Your task to perform on an android device: turn on showing notifications on the lock screen Image 0: 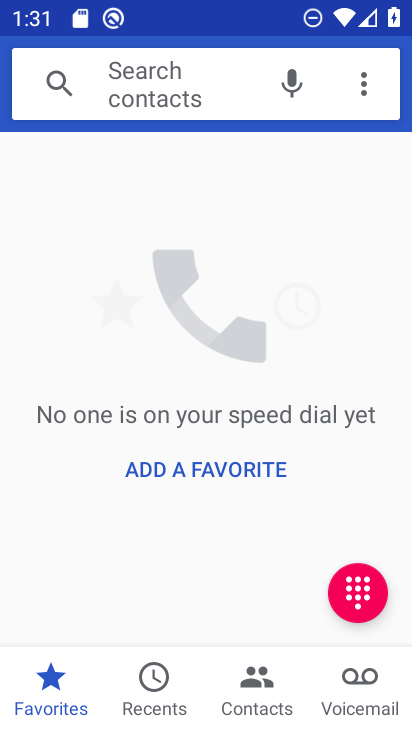
Step 0: press back button
Your task to perform on an android device: turn on showing notifications on the lock screen Image 1: 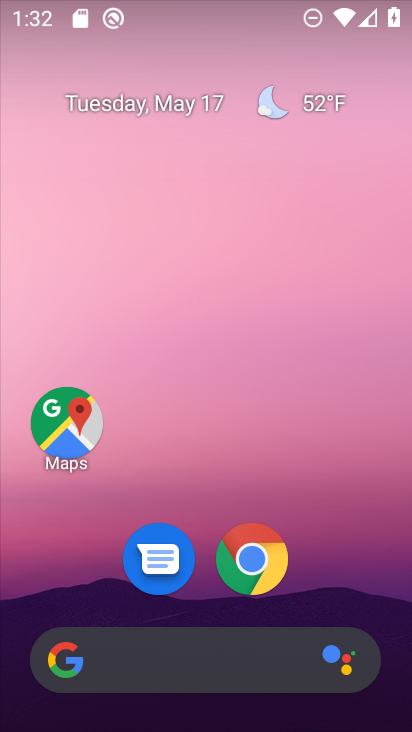
Step 1: drag from (337, 557) to (230, 93)
Your task to perform on an android device: turn on showing notifications on the lock screen Image 2: 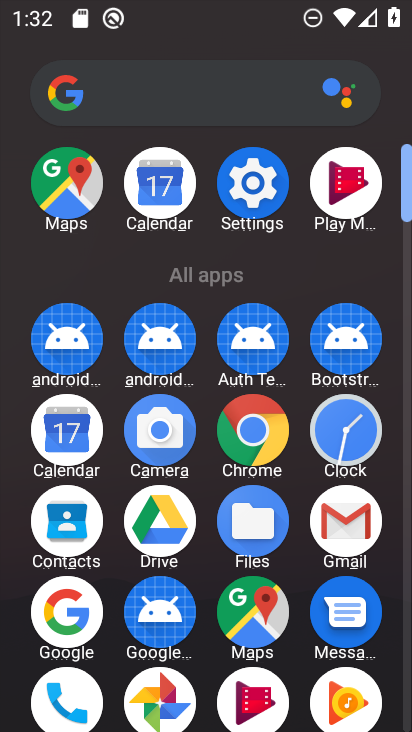
Step 2: click (254, 182)
Your task to perform on an android device: turn on showing notifications on the lock screen Image 3: 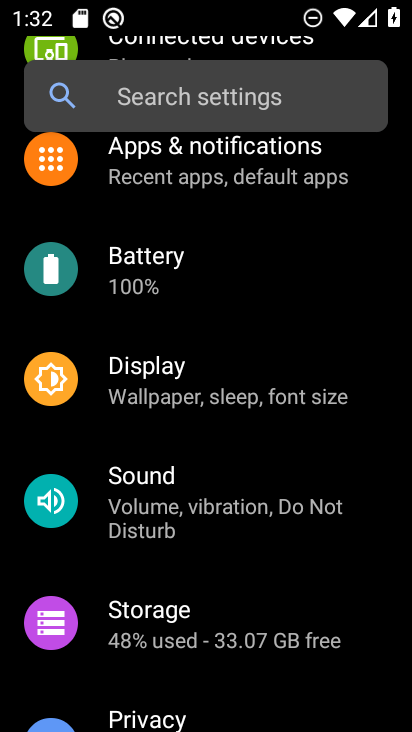
Step 3: drag from (274, 281) to (231, 470)
Your task to perform on an android device: turn on showing notifications on the lock screen Image 4: 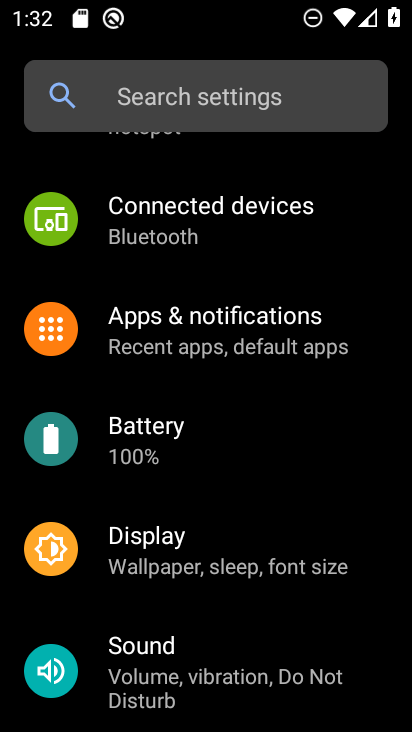
Step 4: click (214, 324)
Your task to perform on an android device: turn on showing notifications on the lock screen Image 5: 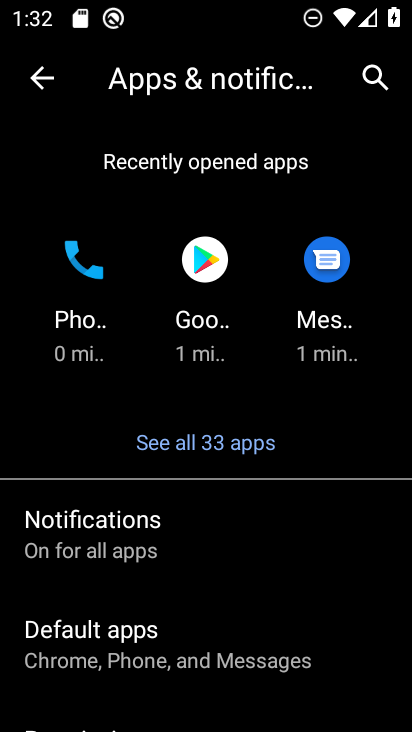
Step 5: click (94, 523)
Your task to perform on an android device: turn on showing notifications on the lock screen Image 6: 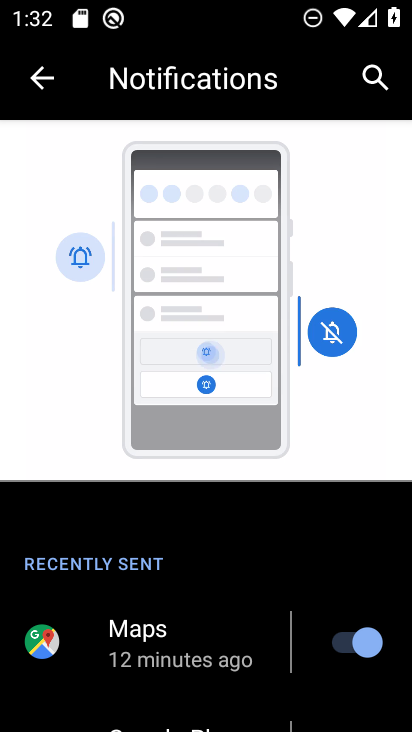
Step 6: drag from (188, 583) to (237, 372)
Your task to perform on an android device: turn on showing notifications on the lock screen Image 7: 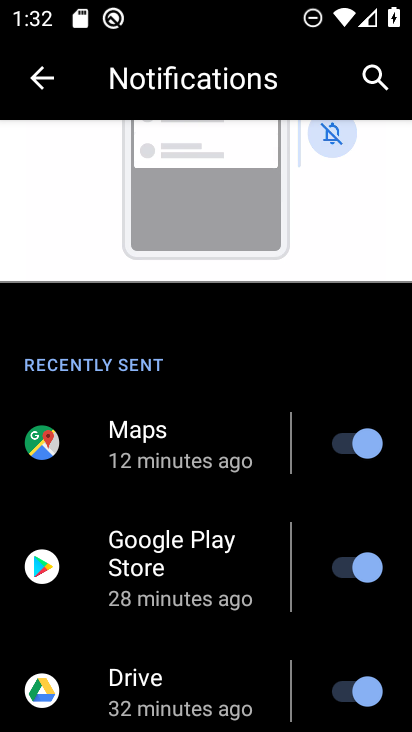
Step 7: drag from (178, 624) to (240, 457)
Your task to perform on an android device: turn on showing notifications on the lock screen Image 8: 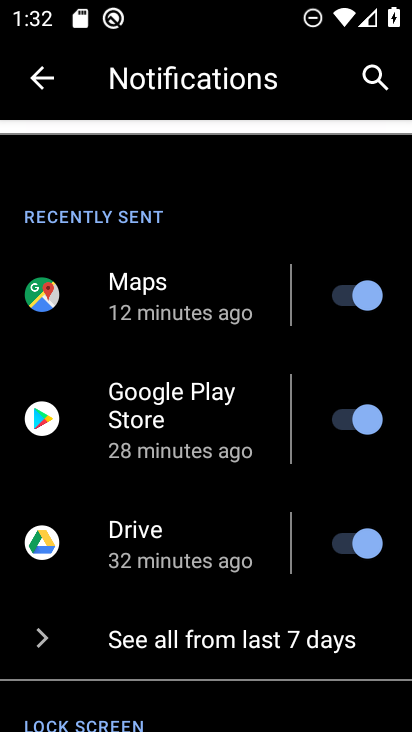
Step 8: drag from (162, 590) to (240, 417)
Your task to perform on an android device: turn on showing notifications on the lock screen Image 9: 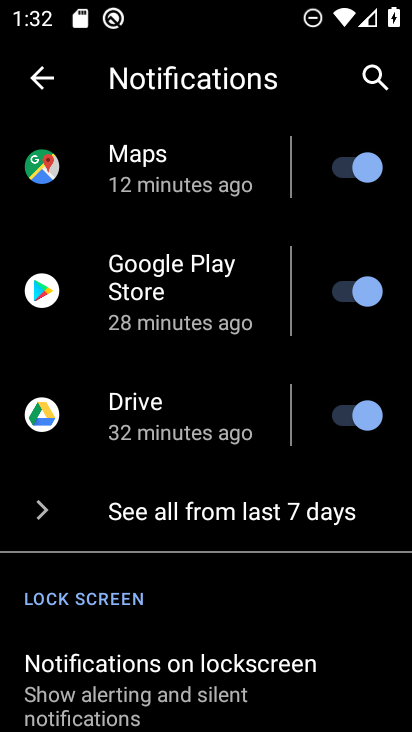
Step 9: drag from (177, 599) to (203, 494)
Your task to perform on an android device: turn on showing notifications on the lock screen Image 10: 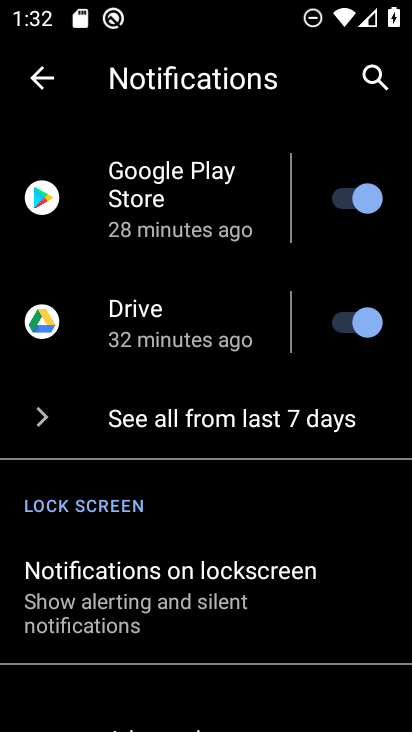
Step 10: click (130, 560)
Your task to perform on an android device: turn on showing notifications on the lock screen Image 11: 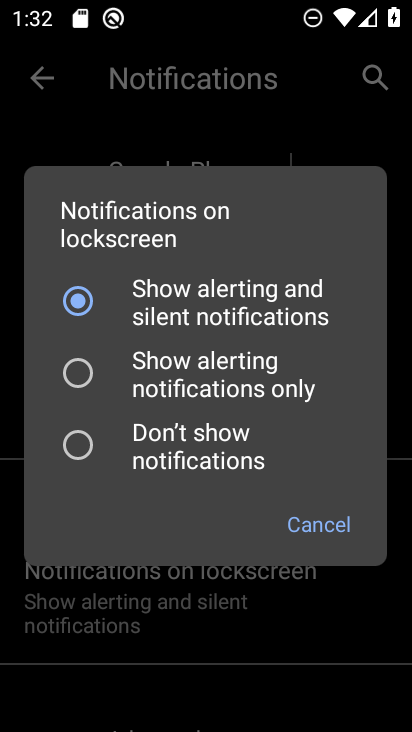
Step 11: click (82, 308)
Your task to perform on an android device: turn on showing notifications on the lock screen Image 12: 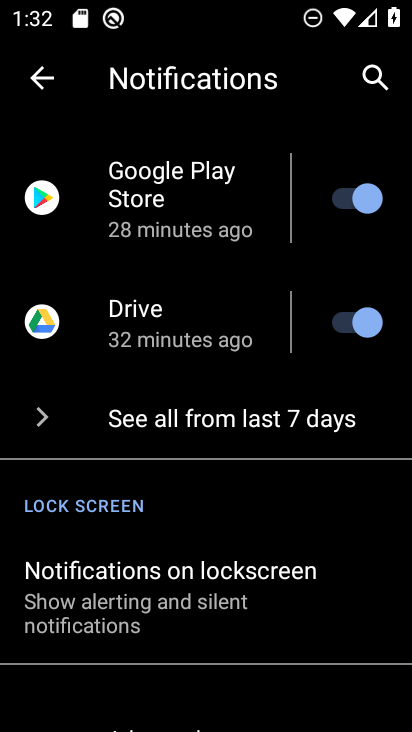
Step 12: task complete